Your task to perform on an android device: Go to Maps Image 0: 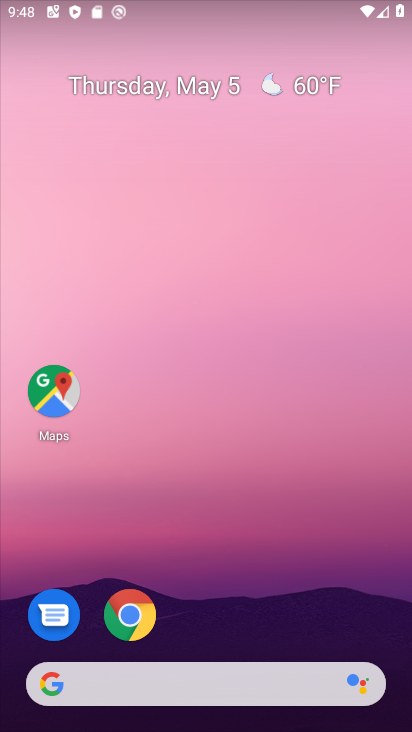
Step 0: click (48, 397)
Your task to perform on an android device: Go to Maps Image 1: 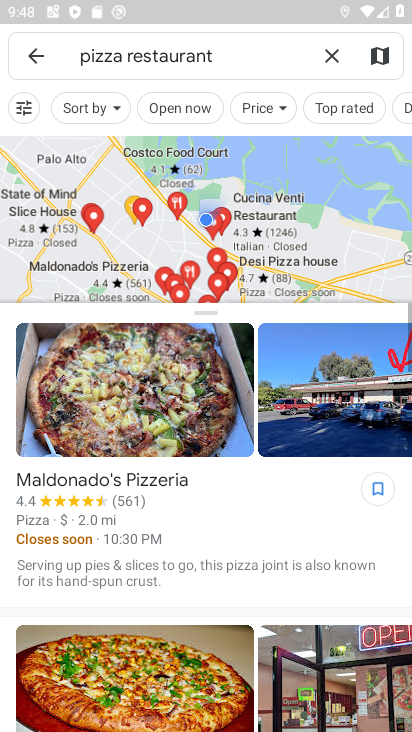
Step 1: task complete